Your task to perform on an android device: Search for floor lamps on article.com Image 0: 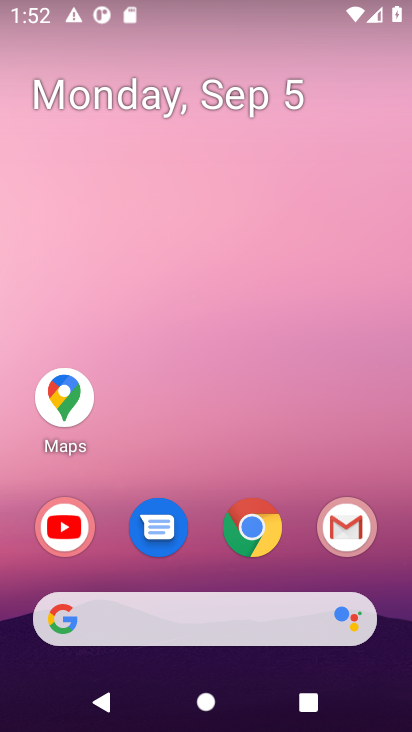
Step 0: click (240, 538)
Your task to perform on an android device: Search for floor lamps on article.com Image 1: 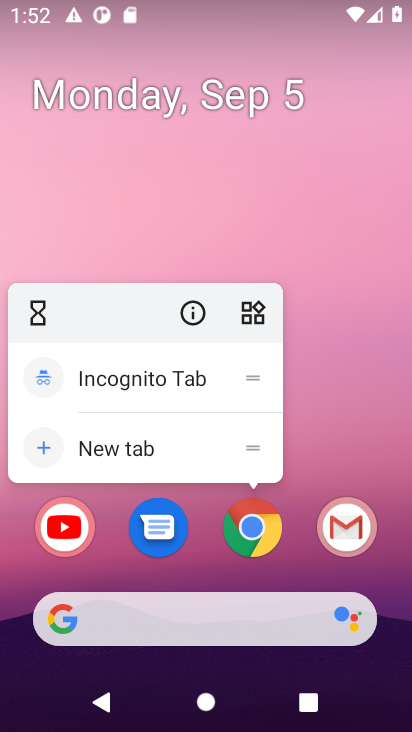
Step 1: click (240, 538)
Your task to perform on an android device: Search for floor lamps on article.com Image 2: 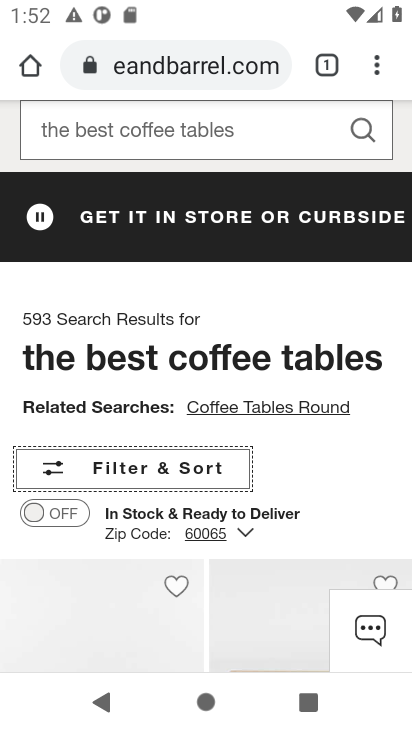
Step 2: click (202, 82)
Your task to perform on an android device: Search for floor lamps on article.com Image 3: 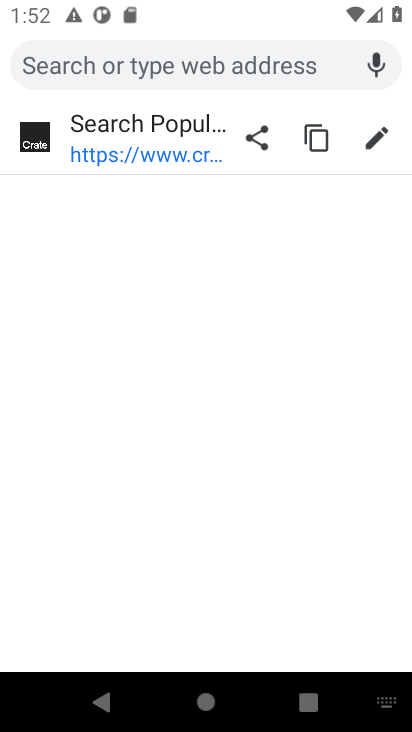
Step 3: type "article.com"
Your task to perform on an android device: Search for floor lamps on article.com Image 4: 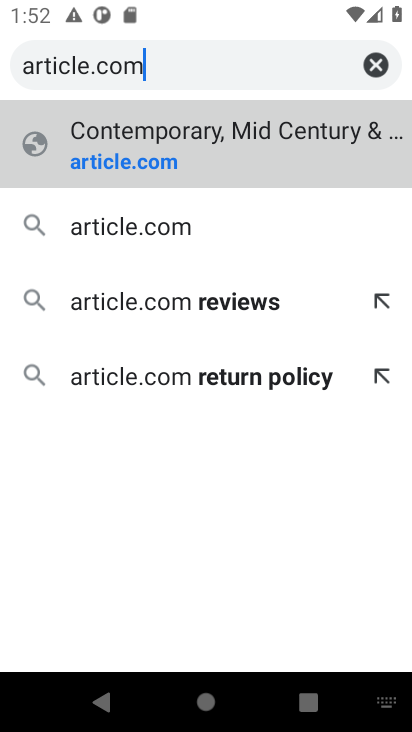
Step 4: click (286, 121)
Your task to perform on an android device: Search for floor lamps on article.com Image 5: 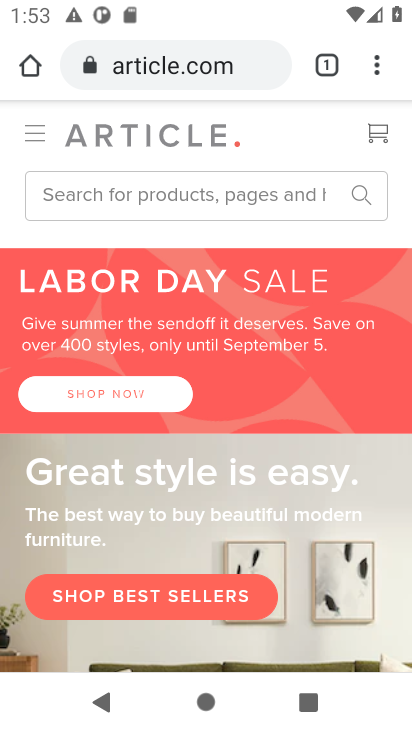
Step 5: click (161, 202)
Your task to perform on an android device: Search for floor lamps on article.com Image 6: 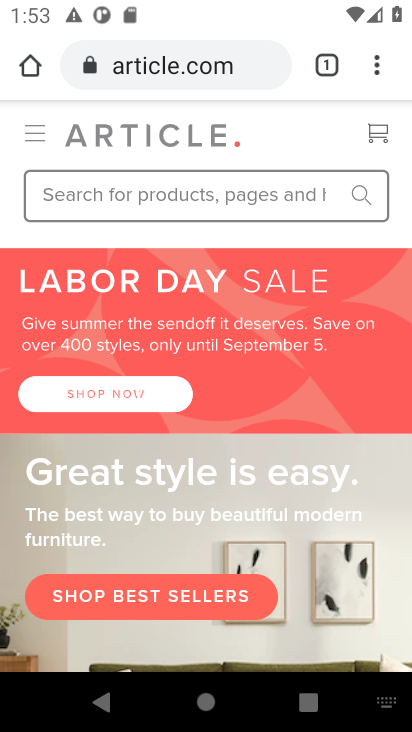
Step 6: type "floor lamps"
Your task to perform on an android device: Search for floor lamps on article.com Image 7: 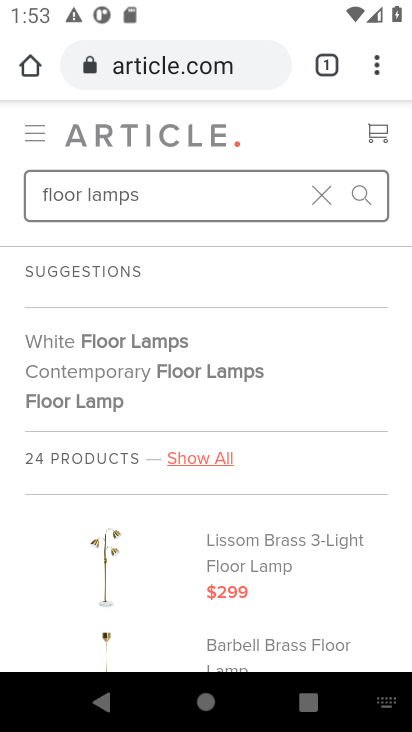
Step 7: click (368, 190)
Your task to perform on an android device: Search for floor lamps on article.com Image 8: 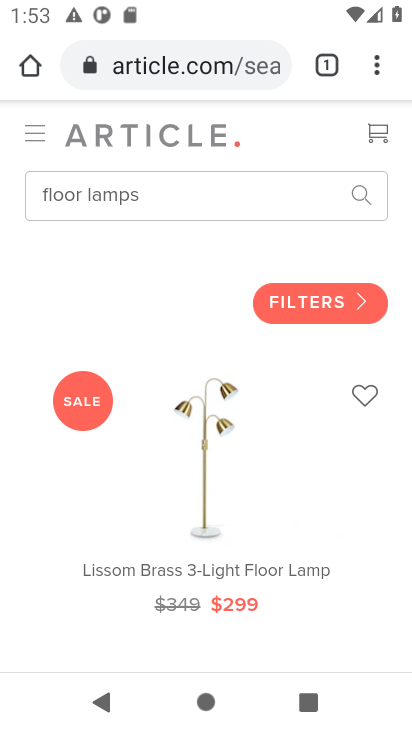
Step 8: task complete